Your task to perform on an android device: Open Google Maps and go to "Timeline" Image 0: 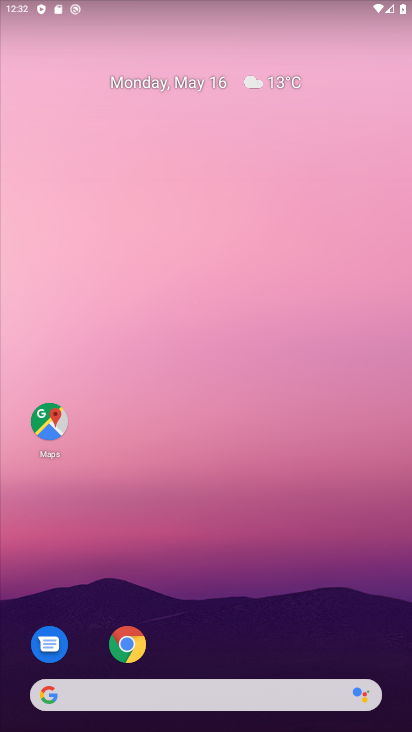
Step 0: click (74, 473)
Your task to perform on an android device: Open Google Maps and go to "Timeline" Image 1: 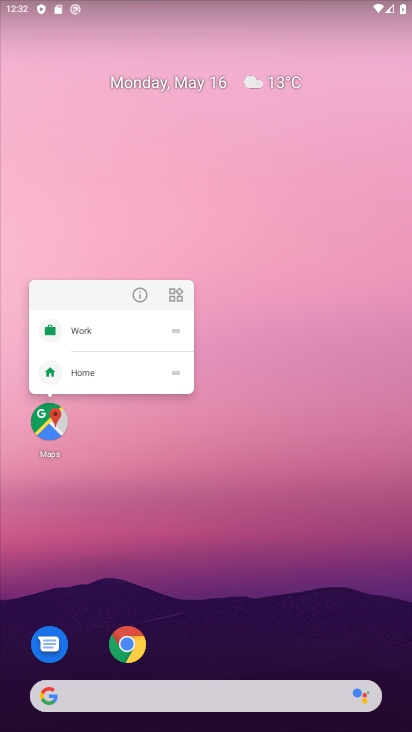
Step 1: click (80, 474)
Your task to perform on an android device: Open Google Maps and go to "Timeline" Image 2: 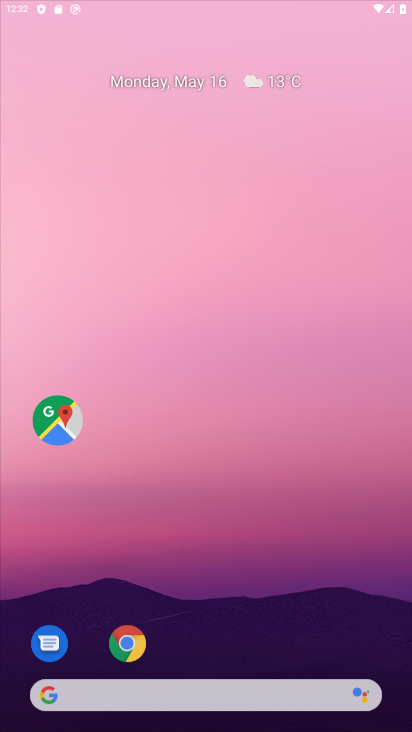
Step 2: click (45, 425)
Your task to perform on an android device: Open Google Maps and go to "Timeline" Image 3: 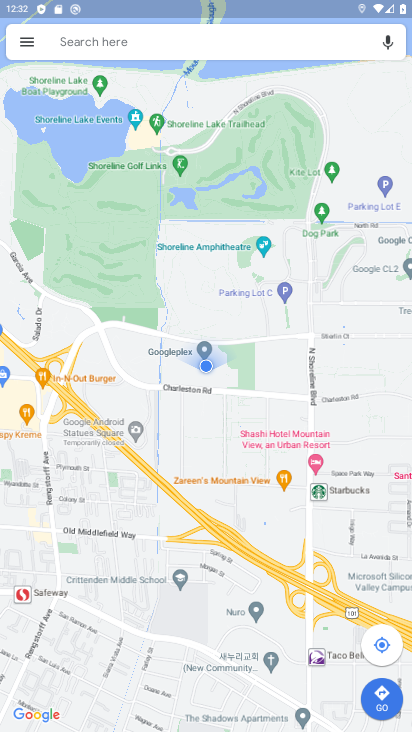
Step 3: click (28, 37)
Your task to perform on an android device: Open Google Maps and go to "Timeline" Image 4: 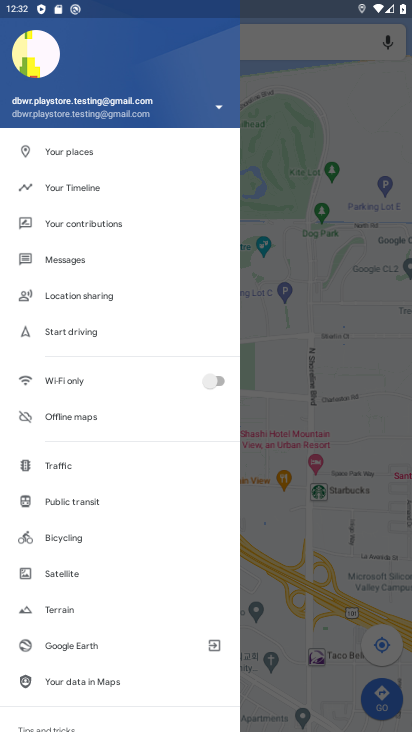
Step 4: click (118, 185)
Your task to perform on an android device: Open Google Maps and go to "Timeline" Image 5: 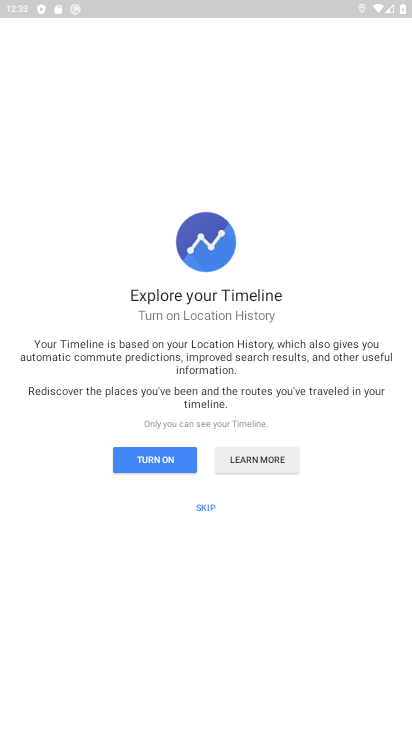
Step 5: click (209, 498)
Your task to perform on an android device: Open Google Maps and go to "Timeline" Image 6: 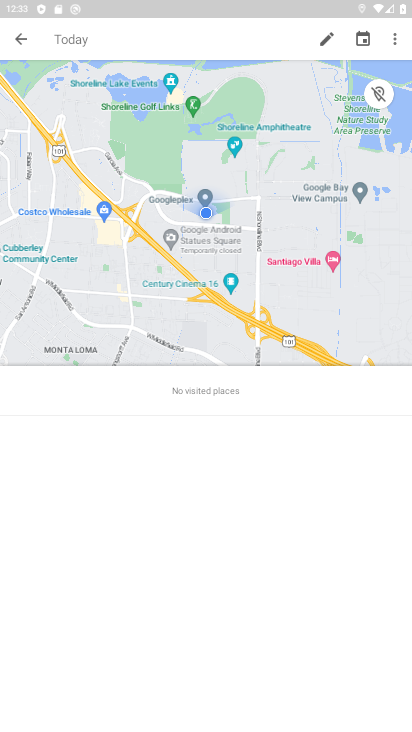
Step 6: task complete